Your task to perform on an android device: Check the news Image 0: 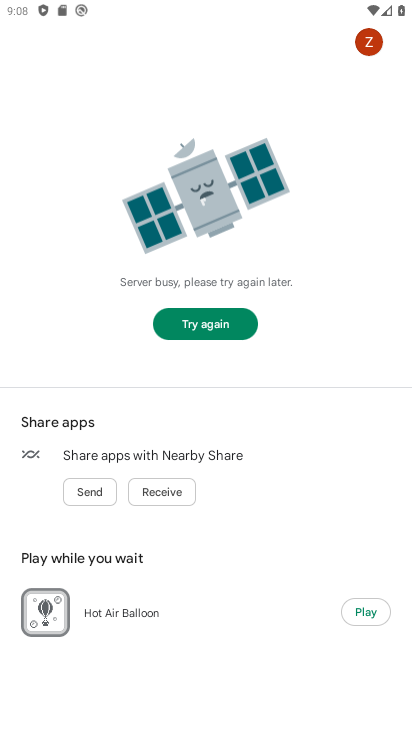
Step 0: press home button
Your task to perform on an android device: Check the news Image 1: 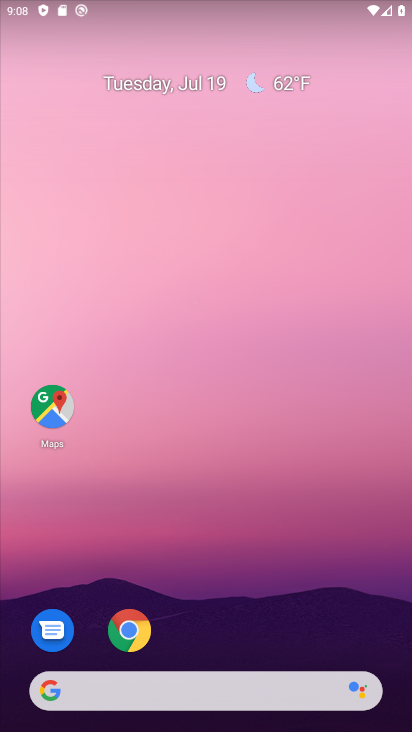
Step 1: drag from (208, 644) to (208, 263)
Your task to perform on an android device: Check the news Image 2: 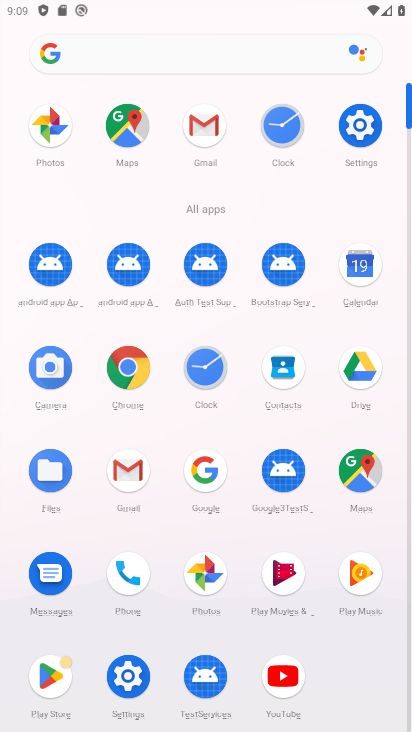
Step 2: click (195, 471)
Your task to perform on an android device: Check the news Image 3: 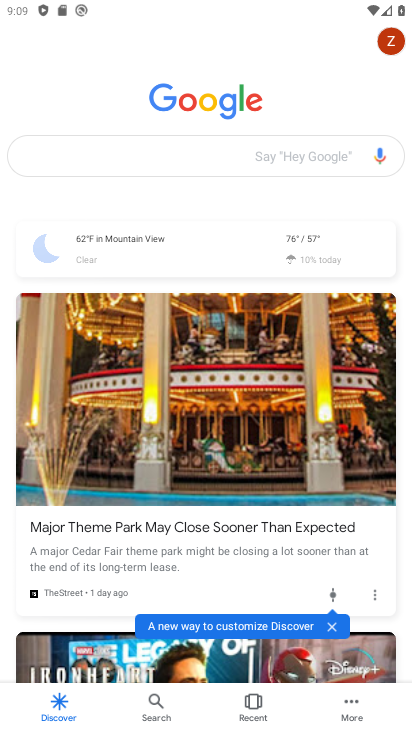
Step 3: drag from (146, 160) to (92, 160)
Your task to perform on an android device: Check the news Image 4: 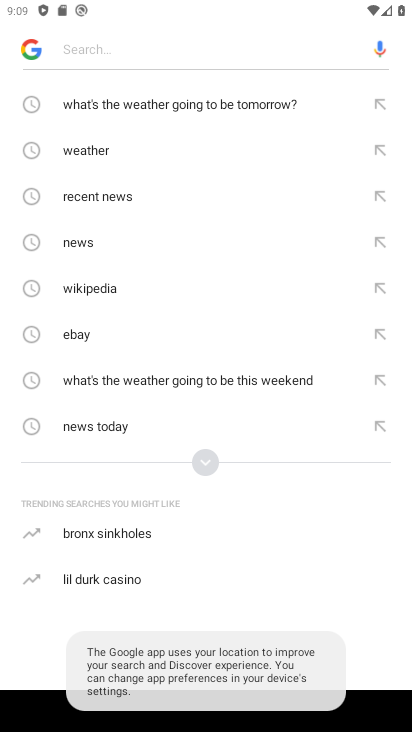
Step 4: click (87, 243)
Your task to perform on an android device: Check the news Image 5: 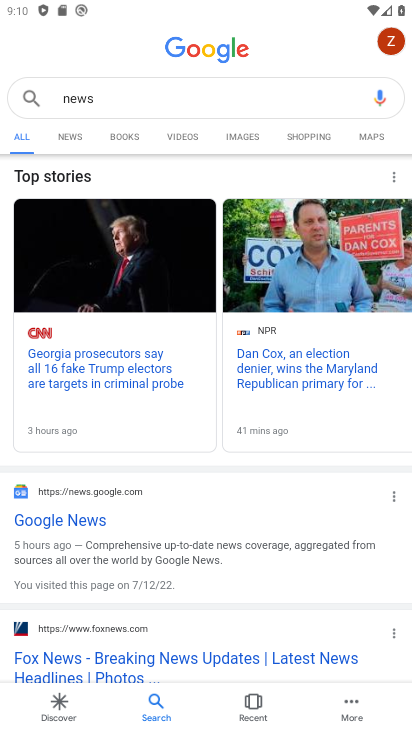
Step 5: task complete